Your task to perform on an android device: turn off notifications settings in the gmail app Image 0: 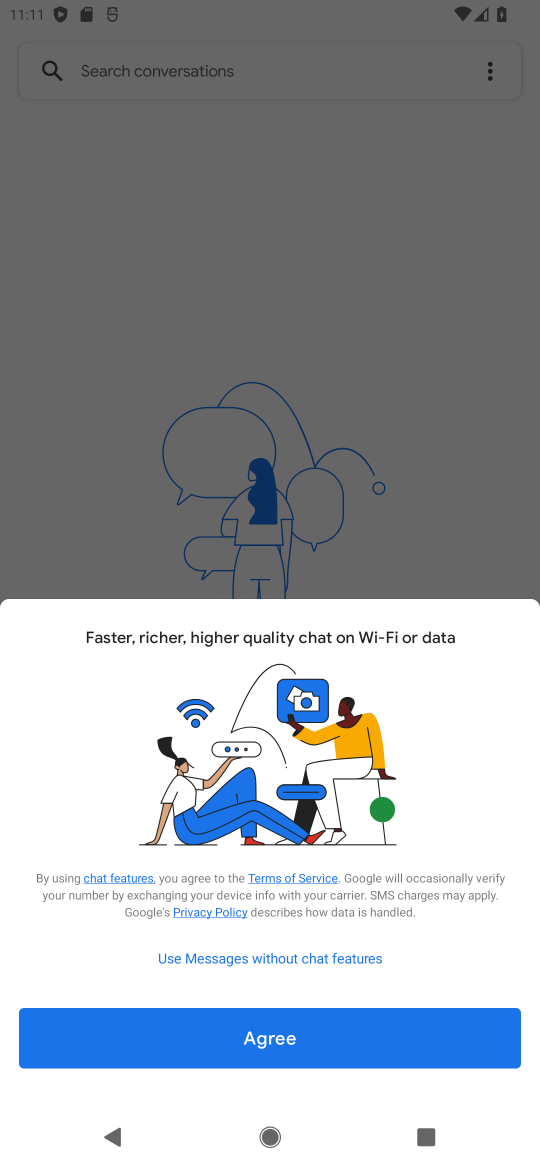
Step 0: press home button
Your task to perform on an android device: turn off notifications settings in the gmail app Image 1: 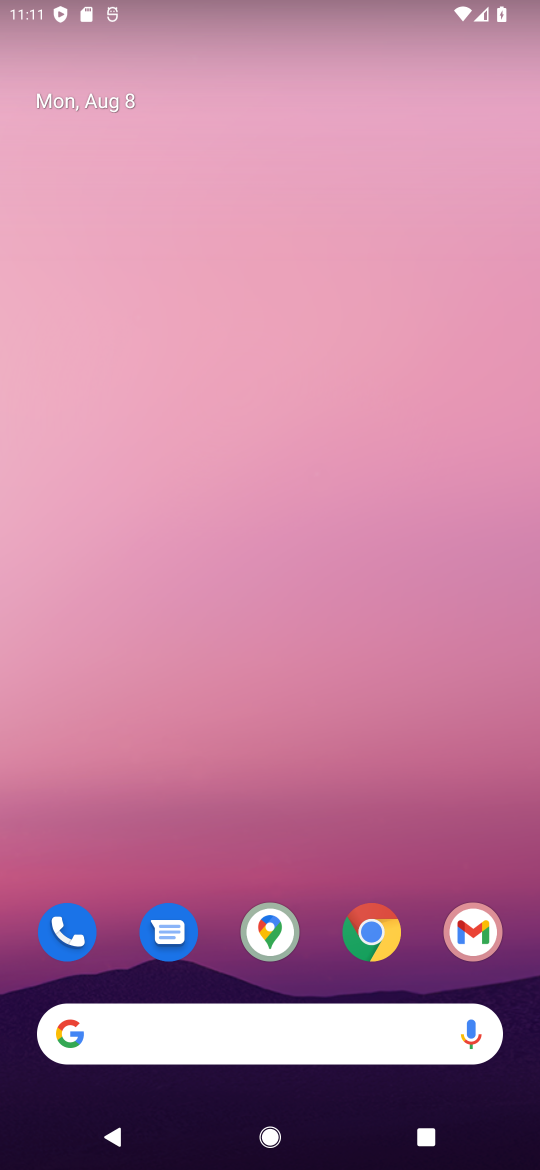
Step 1: click (503, 938)
Your task to perform on an android device: turn off notifications settings in the gmail app Image 2: 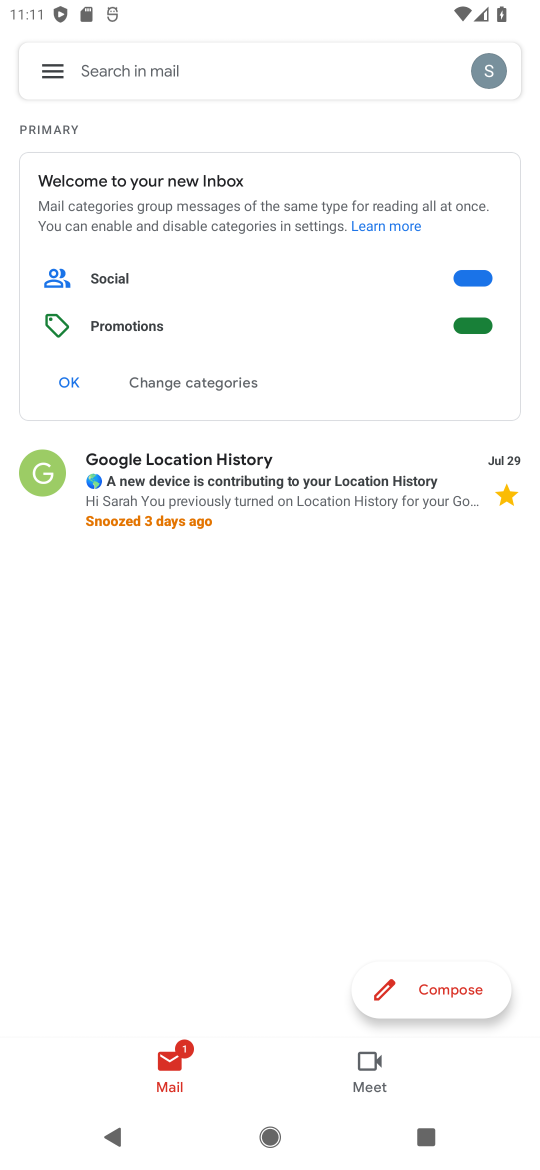
Step 2: click (78, 63)
Your task to perform on an android device: turn off notifications settings in the gmail app Image 3: 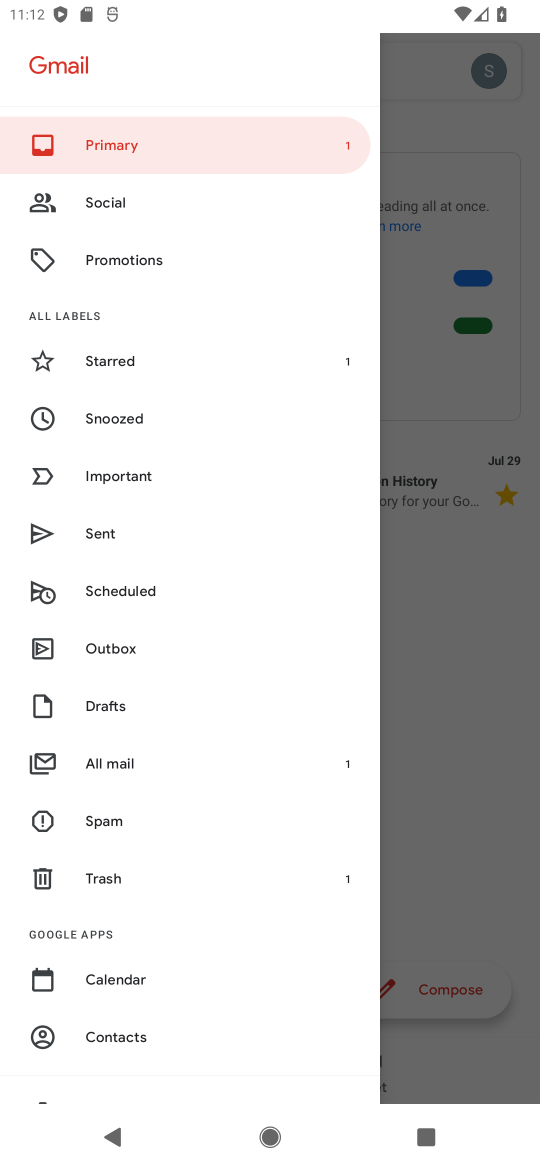
Step 3: drag from (281, 1038) to (256, 234)
Your task to perform on an android device: turn off notifications settings in the gmail app Image 4: 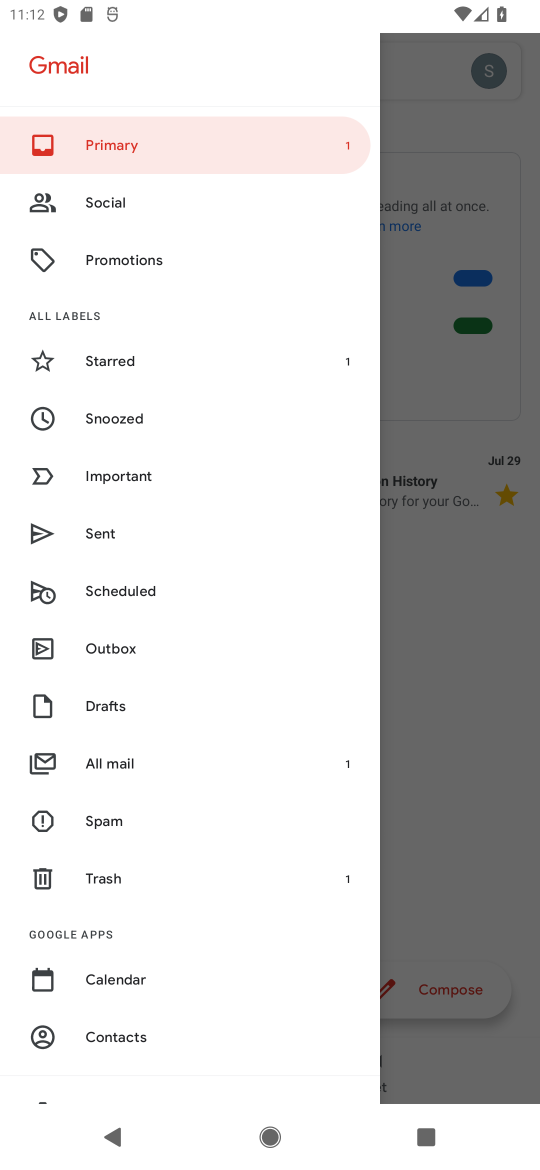
Step 4: drag from (215, 997) to (478, 23)
Your task to perform on an android device: turn off notifications settings in the gmail app Image 5: 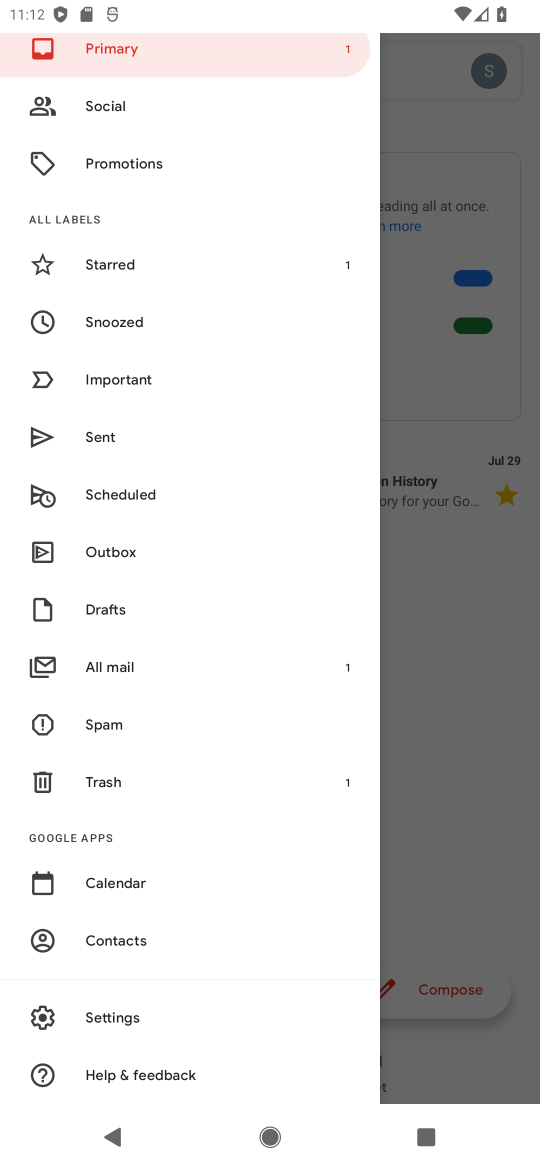
Step 5: click (96, 1008)
Your task to perform on an android device: turn off notifications settings in the gmail app Image 6: 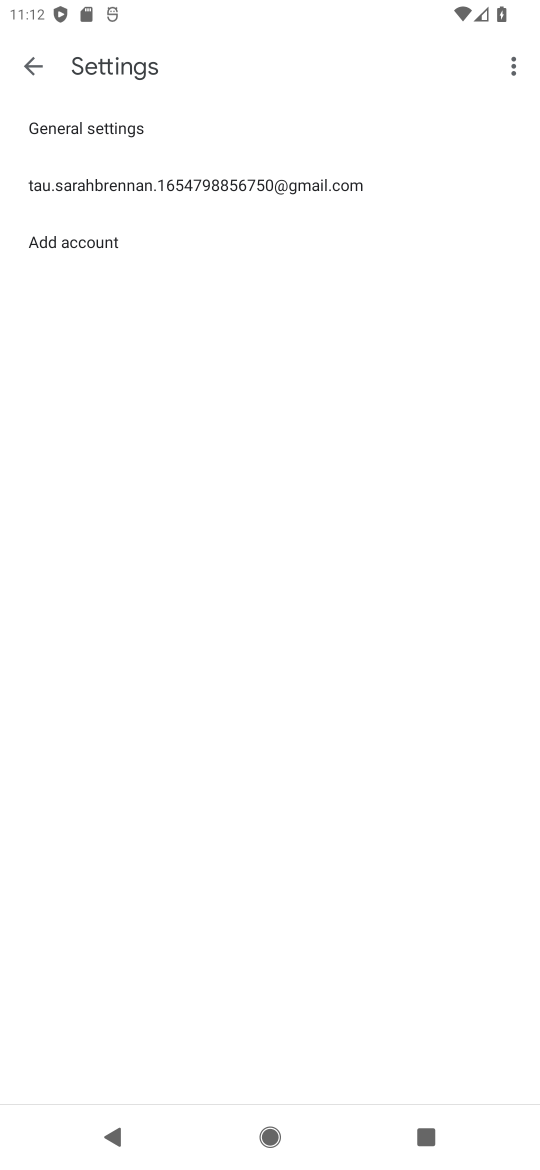
Step 6: click (381, 195)
Your task to perform on an android device: turn off notifications settings in the gmail app Image 7: 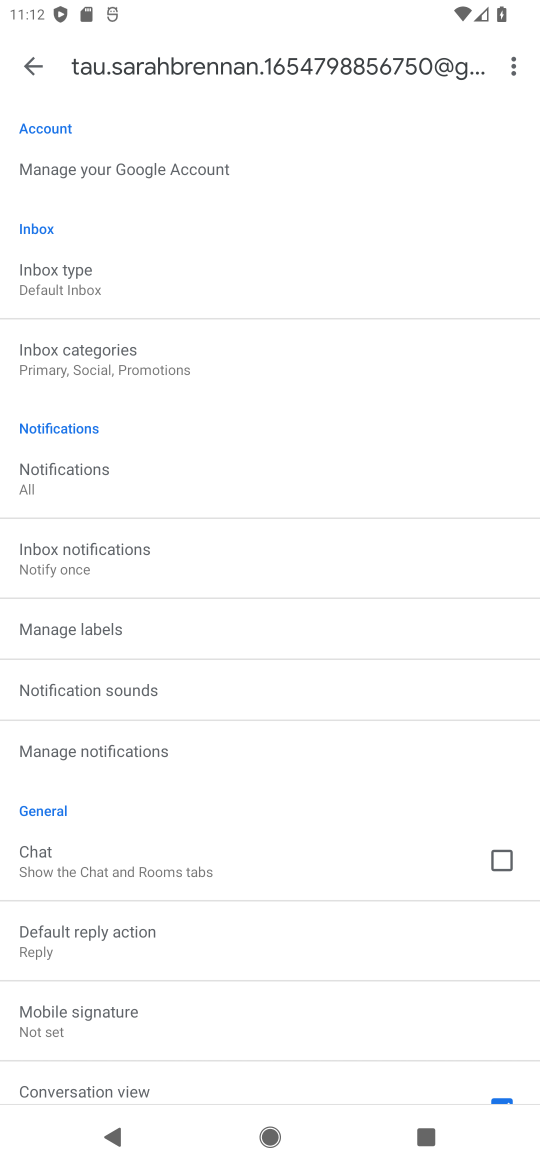
Step 7: click (75, 470)
Your task to perform on an android device: turn off notifications settings in the gmail app Image 8: 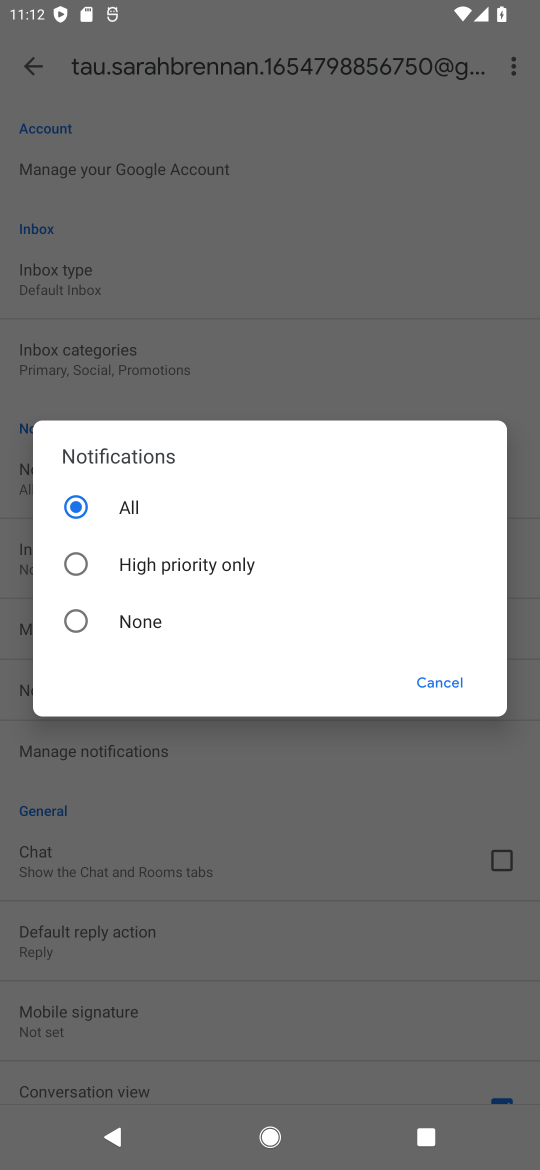
Step 8: click (76, 623)
Your task to perform on an android device: turn off notifications settings in the gmail app Image 9: 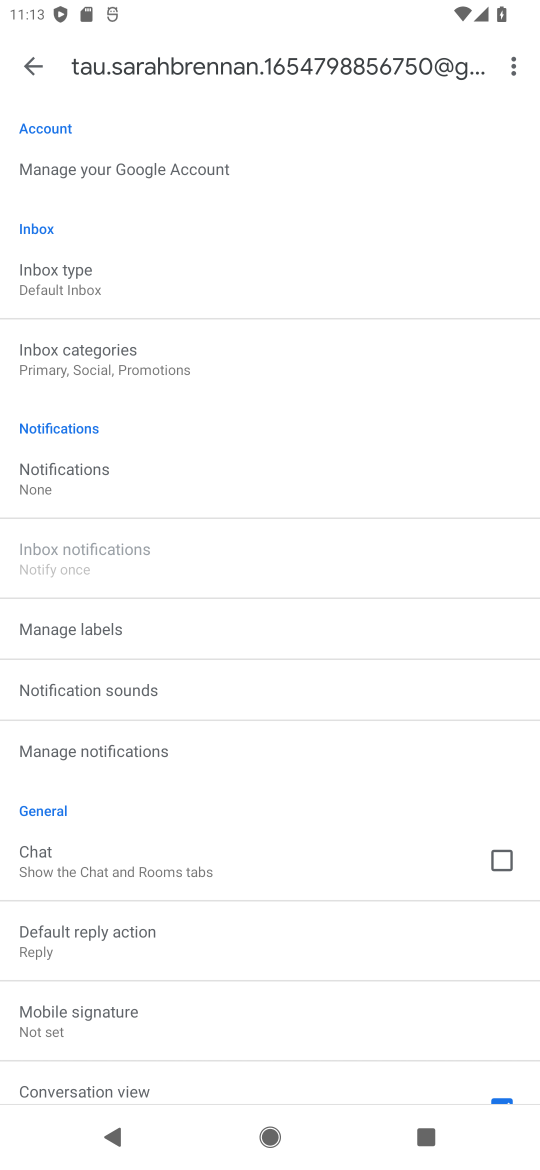
Step 9: task complete